Your task to perform on an android device: Show me popular videos on Youtube Image 0: 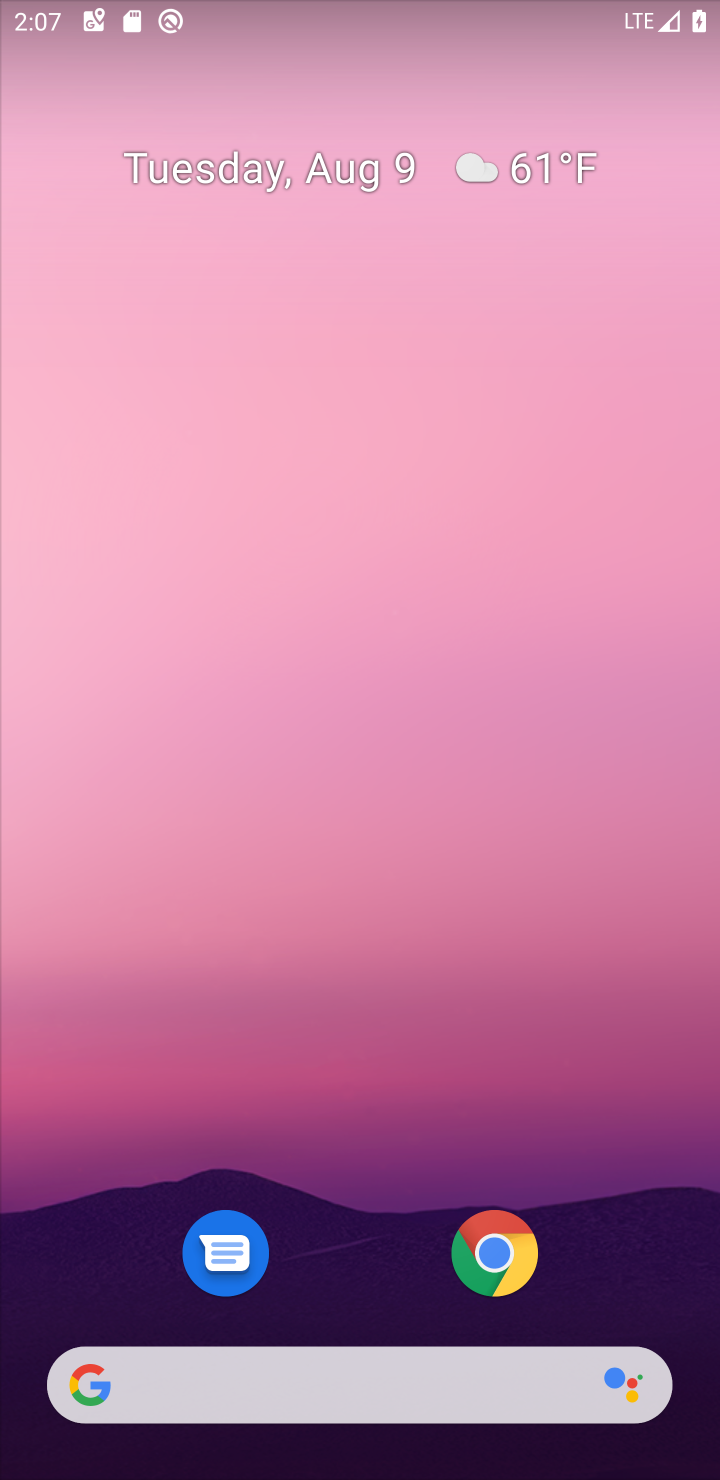
Step 0: drag from (648, 1202) to (392, 95)
Your task to perform on an android device: Show me popular videos on Youtube Image 1: 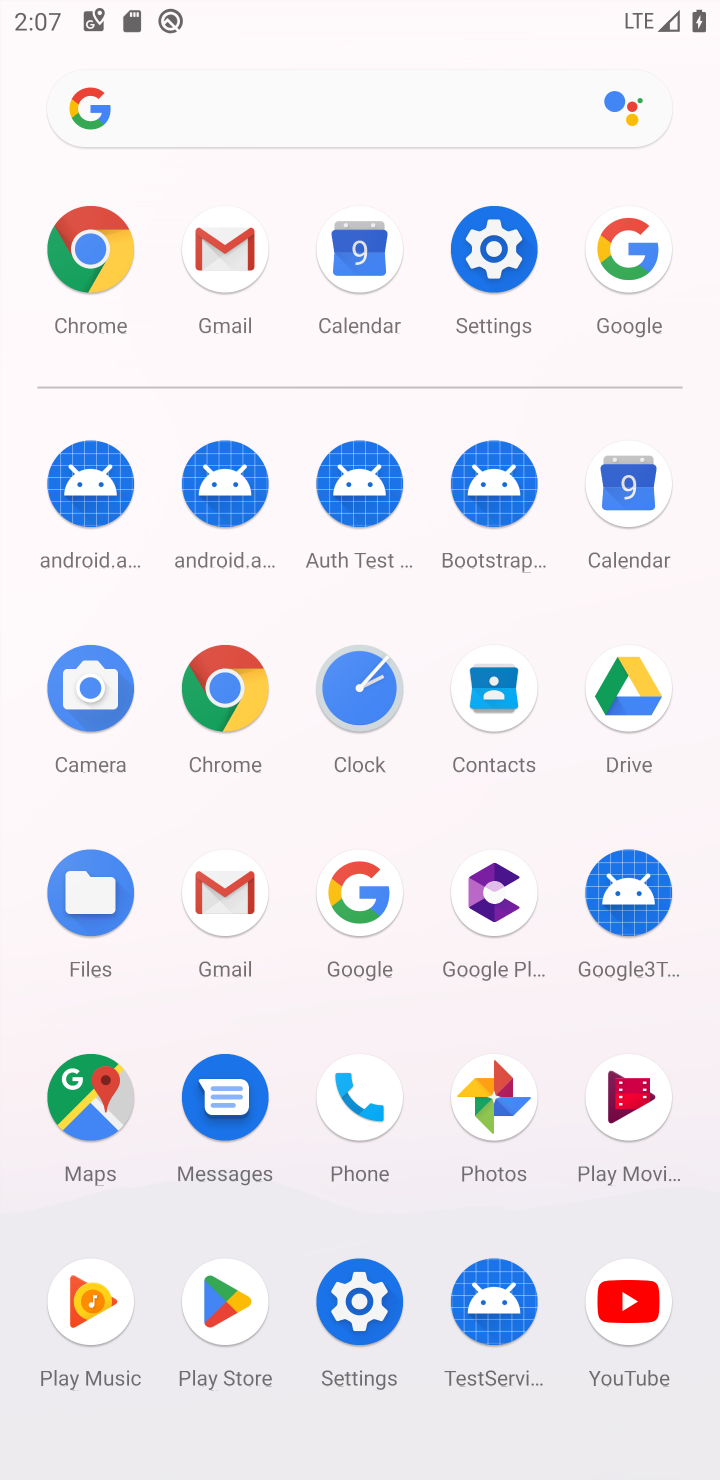
Step 1: click (612, 1322)
Your task to perform on an android device: Show me popular videos on Youtube Image 2: 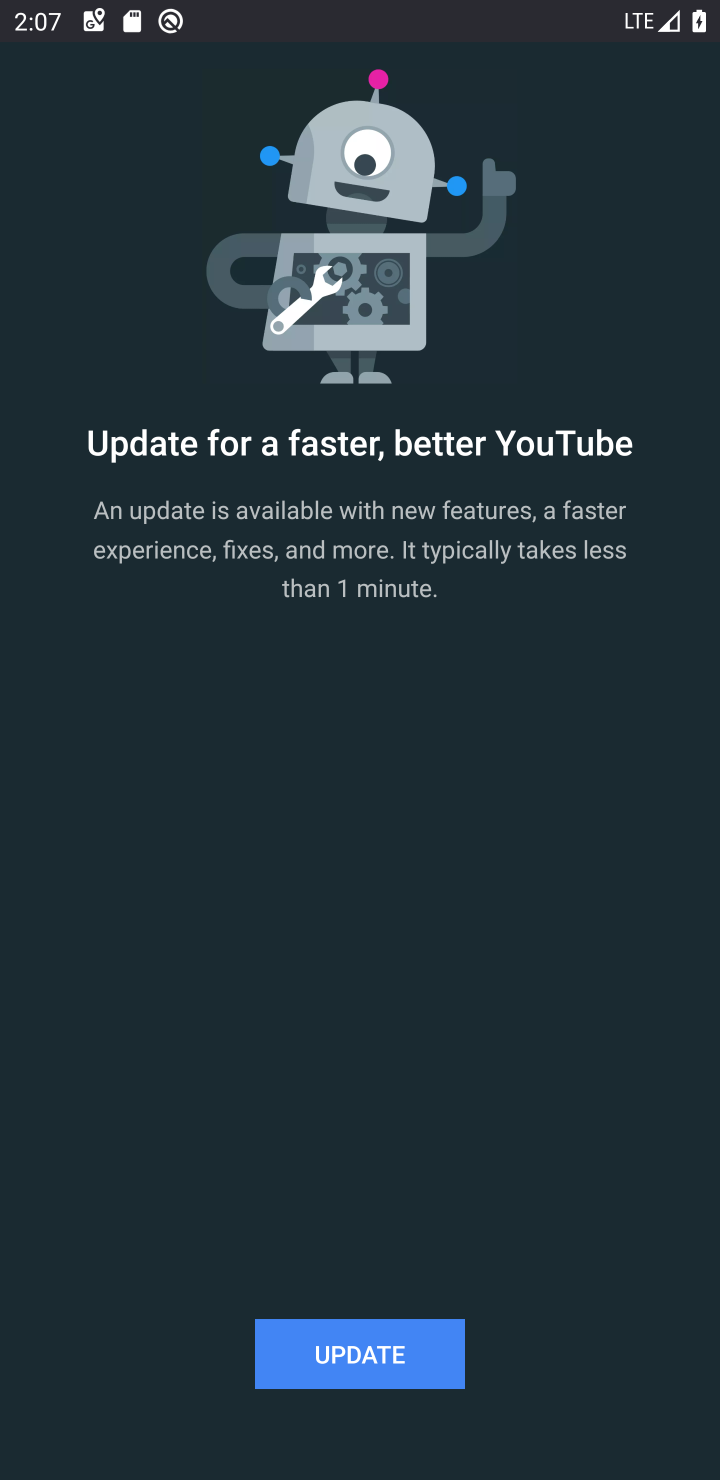
Step 2: task complete